Your task to perform on an android device: turn on showing notifications on the lock screen Image 0: 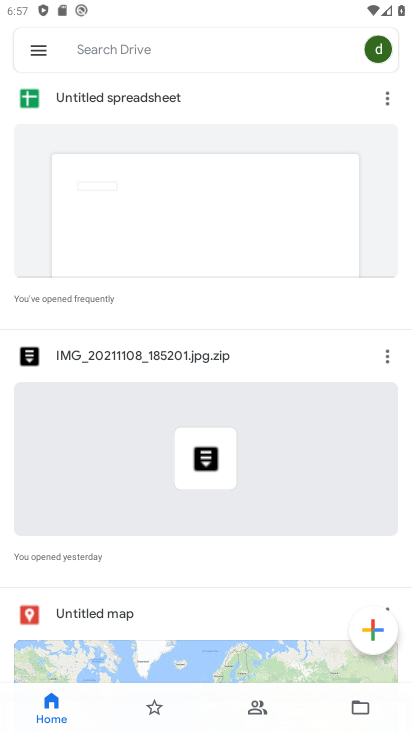
Step 0: press home button
Your task to perform on an android device: turn on showing notifications on the lock screen Image 1: 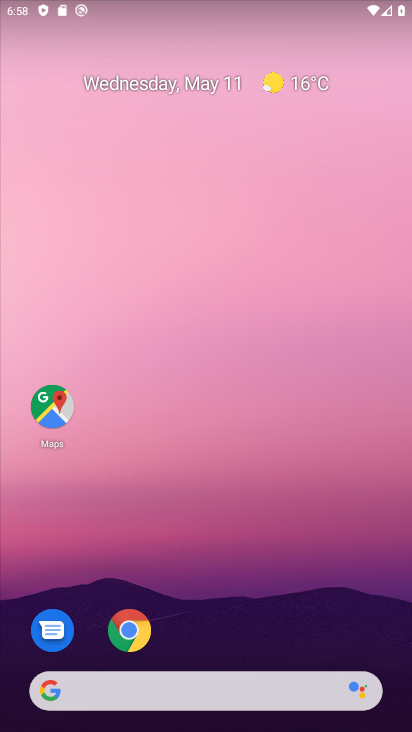
Step 1: drag from (294, 576) to (290, 14)
Your task to perform on an android device: turn on showing notifications on the lock screen Image 2: 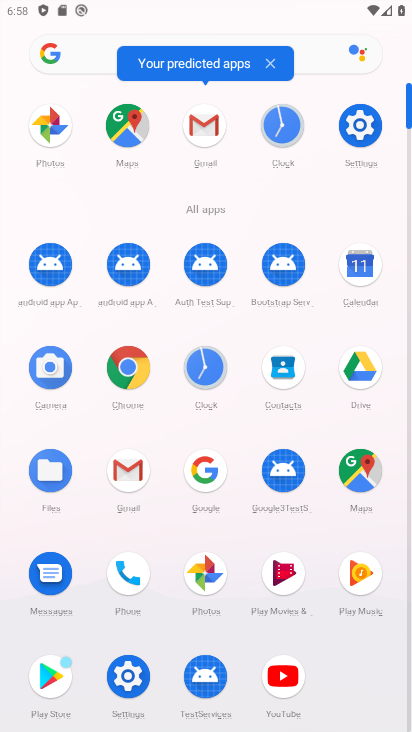
Step 2: click (356, 127)
Your task to perform on an android device: turn on showing notifications on the lock screen Image 3: 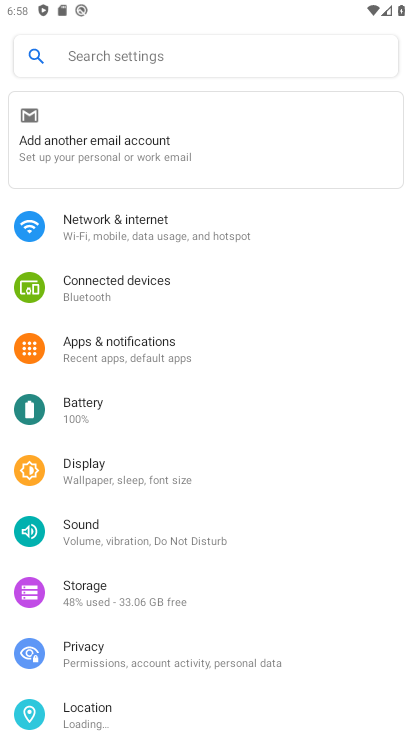
Step 3: click (152, 333)
Your task to perform on an android device: turn on showing notifications on the lock screen Image 4: 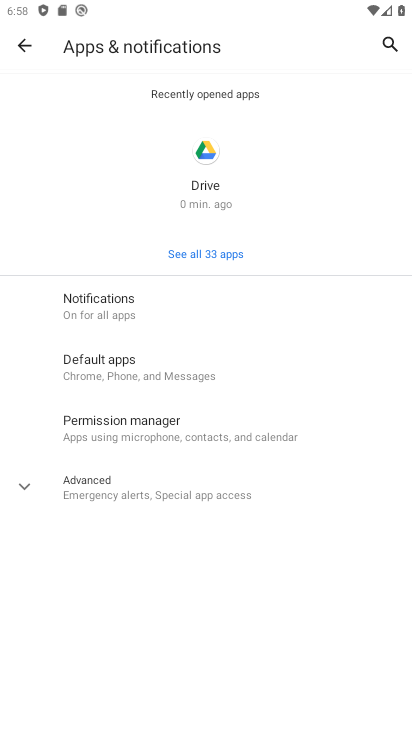
Step 4: click (111, 308)
Your task to perform on an android device: turn on showing notifications on the lock screen Image 5: 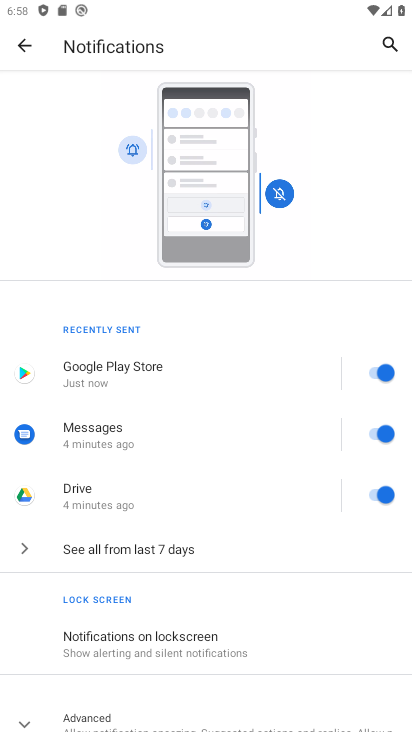
Step 5: click (188, 640)
Your task to perform on an android device: turn on showing notifications on the lock screen Image 6: 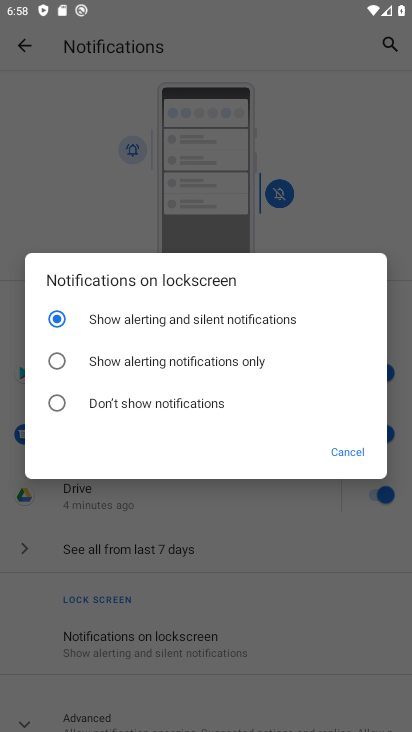
Step 6: click (61, 357)
Your task to perform on an android device: turn on showing notifications on the lock screen Image 7: 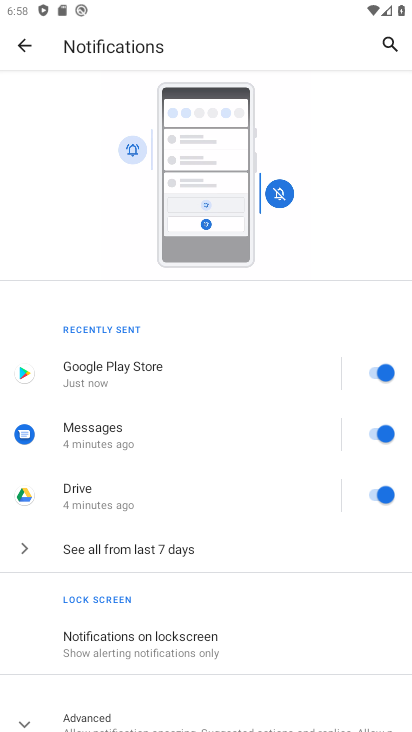
Step 7: task complete